Your task to perform on an android device: Open the Play Movies app and select the watchlist tab. Image 0: 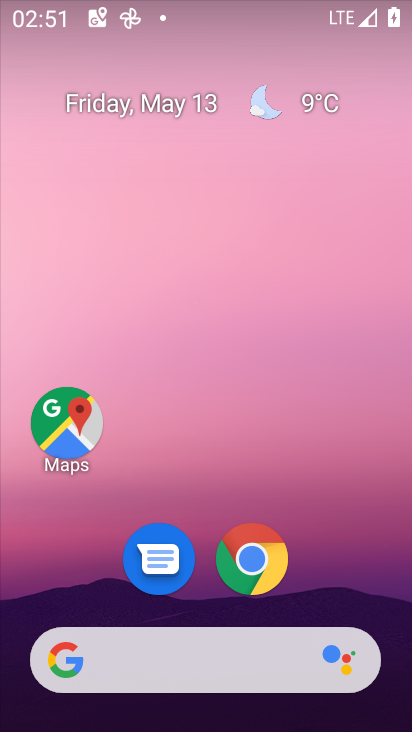
Step 0: drag from (393, 507) to (375, 214)
Your task to perform on an android device: Open the Play Movies app and select the watchlist tab. Image 1: 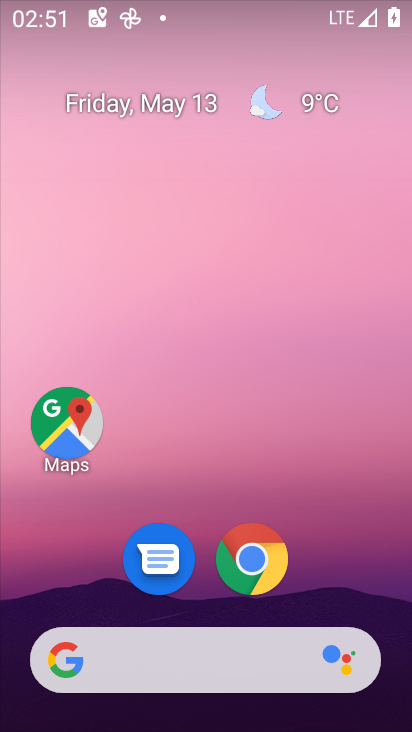
Step 1: drag from (399, 671) to (382, 181)
Your task to perform on an android device: Open the Play Movies app and select the watchlist tab. Image 2: 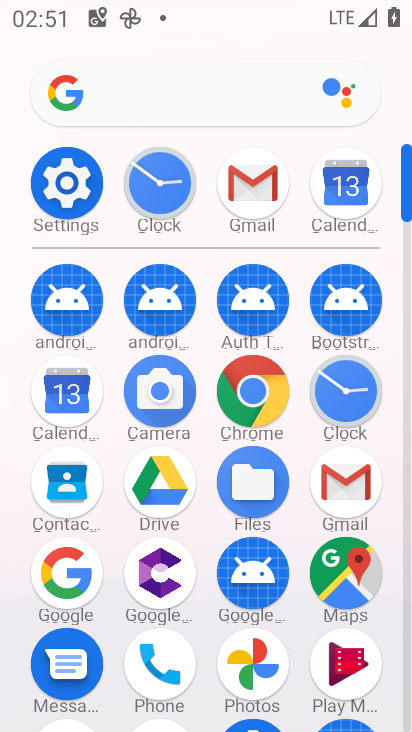
Step 2: click (349, 659)
Your task to perform on an android device: Open the Play Movies app and select the watchlist tab. Image 3: 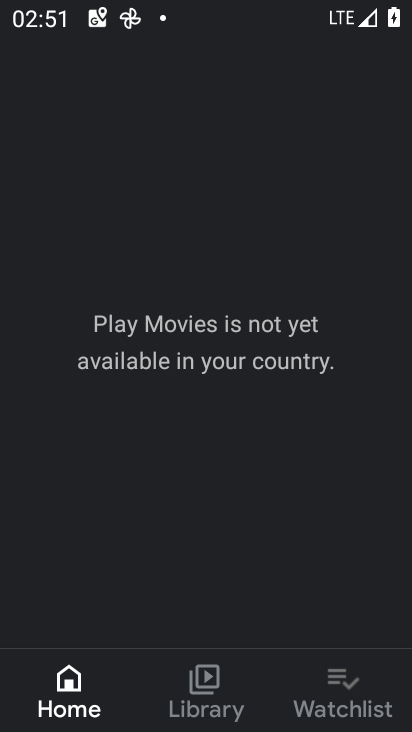
Step 3: click (338, 697)
Your task to perform on an android device: Open the Play Movies app and select the watchlist tab. Image 4: 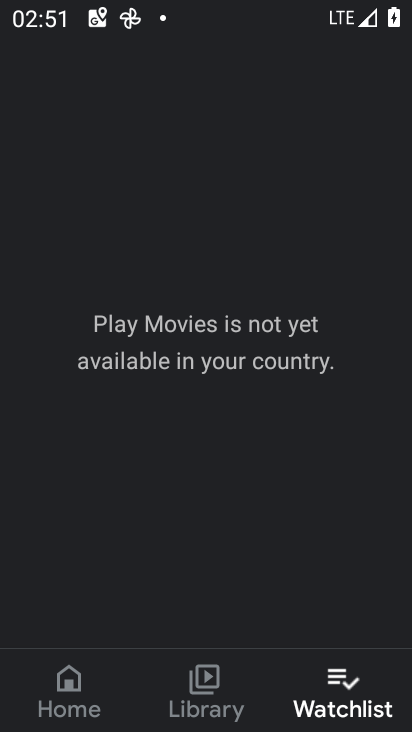
Step 4: task complete